Your task to perform on an android device: turn off translation in the chrome app Image 0: 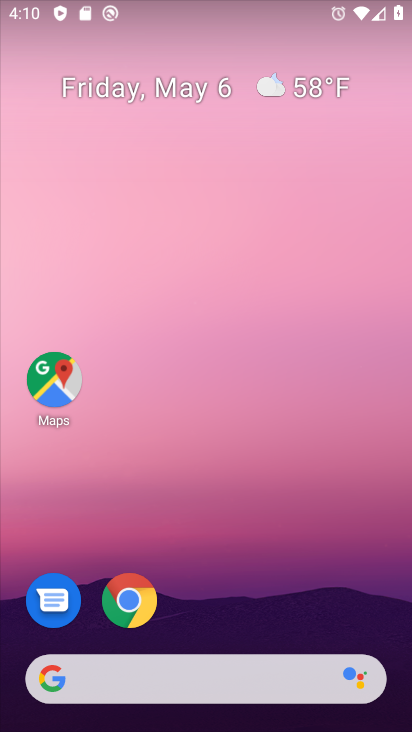
Step 0: click (131, 597)
Your task to perform on an android device: turn off translation in the chrome app Image 1: 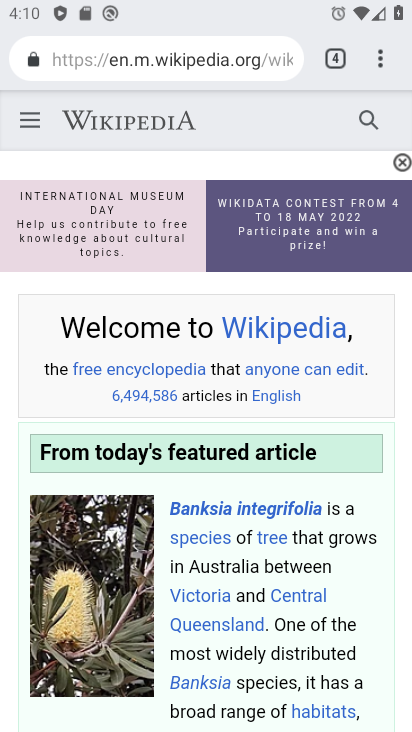
Step 1: click (357, 58)
Your task to perform on an android device: turn off translation in the chrome app Image 2: 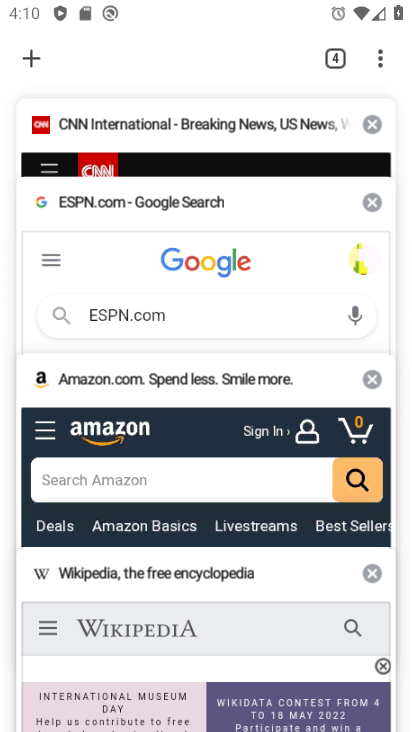
Step 2: click (370, 57)
Your task to perform on an android device: turn off translation in the chrome app Image 3: 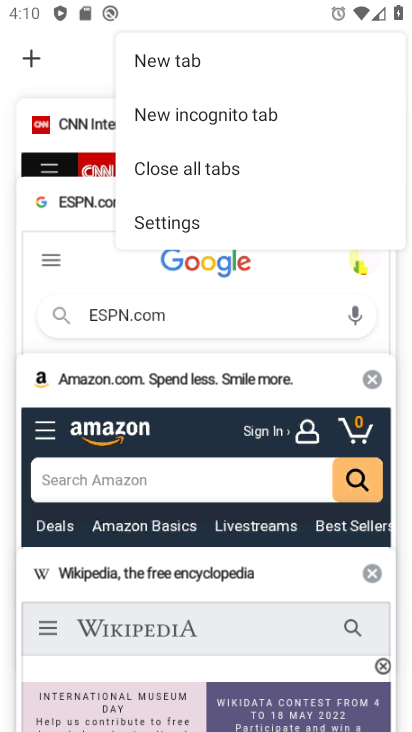
Step 3: click (172, 224)
Your task to perform on an android device: turn off translation in the chrome app Image 4: 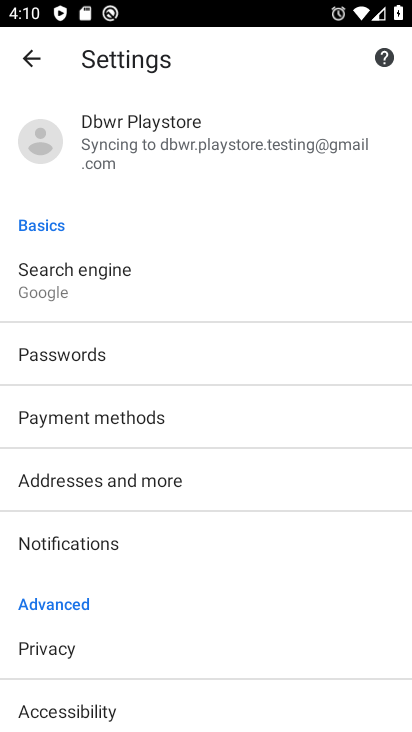
Step 4: drag from (114, 566) to (229, 111)
Your task to perform on an android device: turn off translation in the chrome app Image 5: 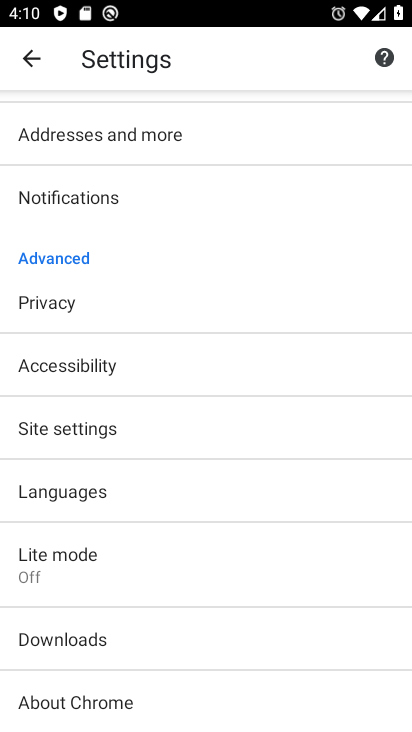
Step 5: click (91, 487)
Your task to perform on an android device: turn off translation in the chrome app Image 6: 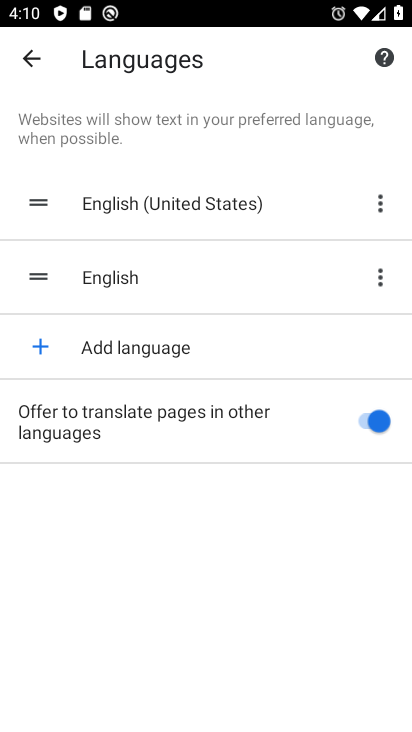
Step 6: click (343, 428)
Your task to perform on an android device: turn off translation in the chrome app Image 7: 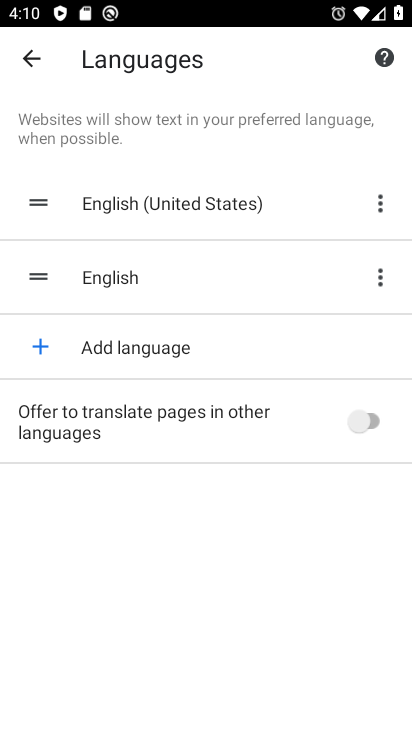
Step 7: task complete